Your task to perform on an android device: Open ESPN.com Image 0: 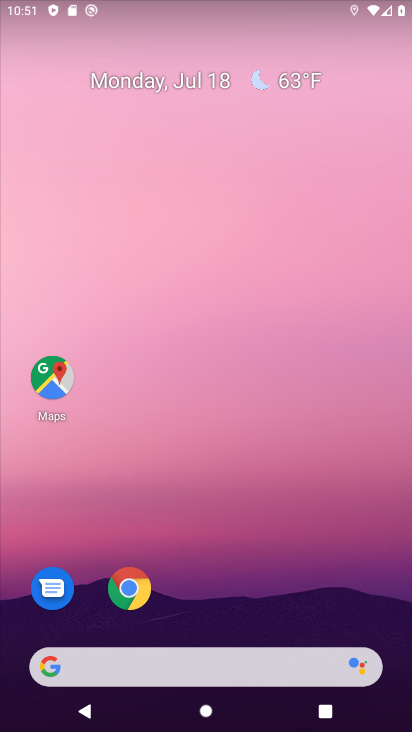
Step 0: drag from (196, 627) to (183, 101)
Your task to perform on an android device: Open ESPN.com Image 1: 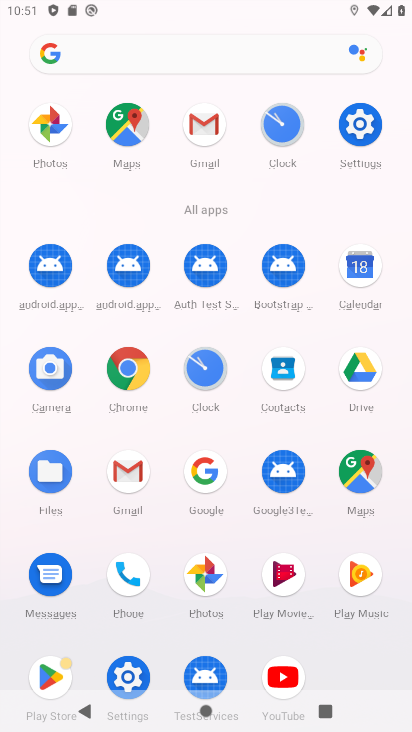
Step 1: click (129, 371)
Your task to perform on an android device: Open ESPN.com Image 2: 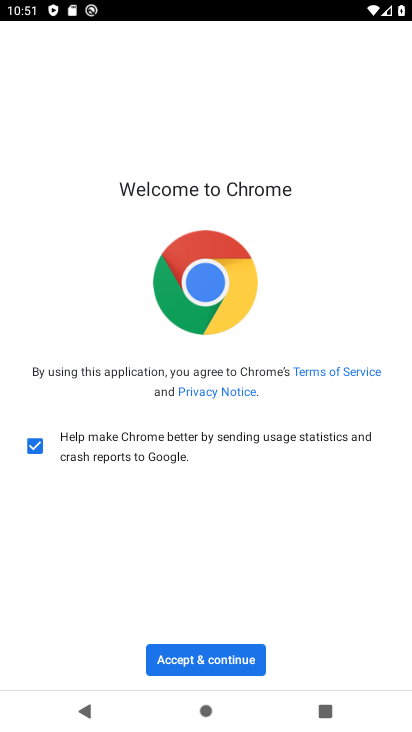
Step 2: click (223, 659)
Your task to perform on an android device: Open ESPN.com Image 3: 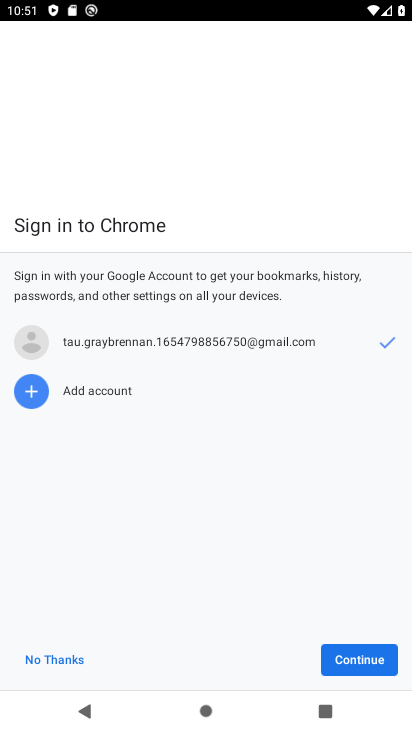
Step 3: click (356, 659)
Your task to perform on an android device: Open ESPN.com Image 4: 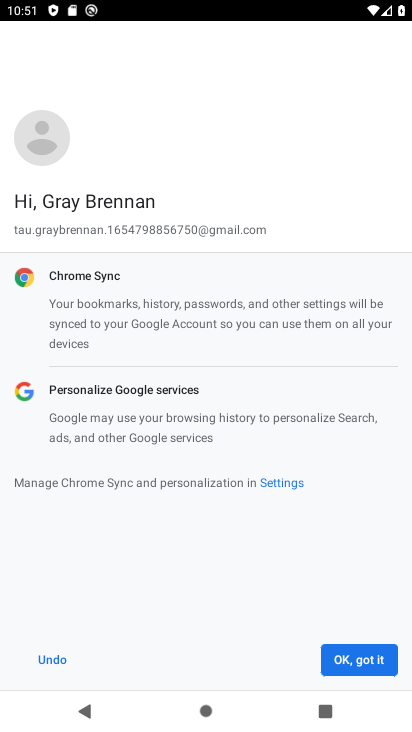
Step 4: click (369, 653)
Your task to perform on an android device: Open ESPN.com Image 5: 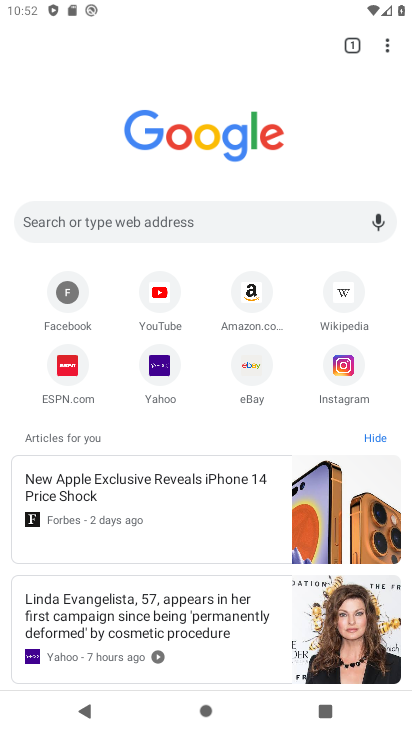
Step 5: click (65, 360)
Your task to perform on an android device: Open ESPN.com Image 6: 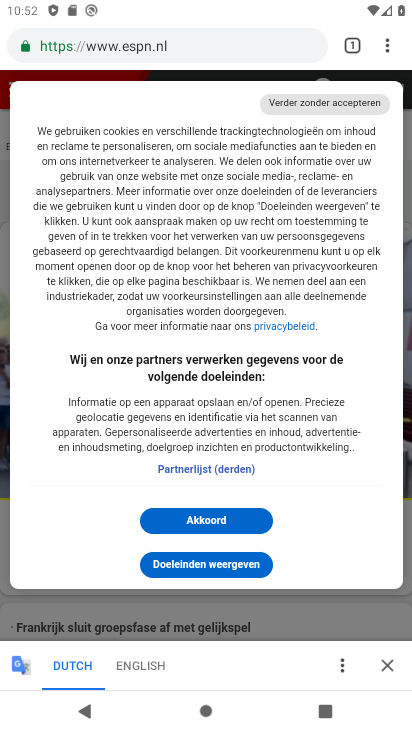
Step 6: task complete